Your task to perform on an android device: Open internet settings Image 0: 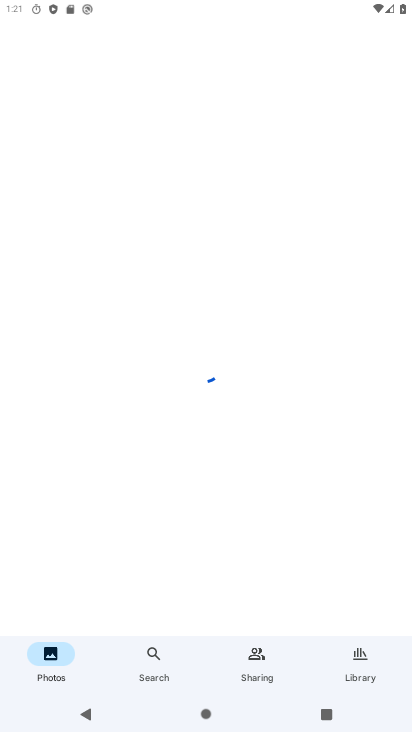
Step 0: click (300, 366)
Your task to perform on an android device: Open internet settings Image 1: 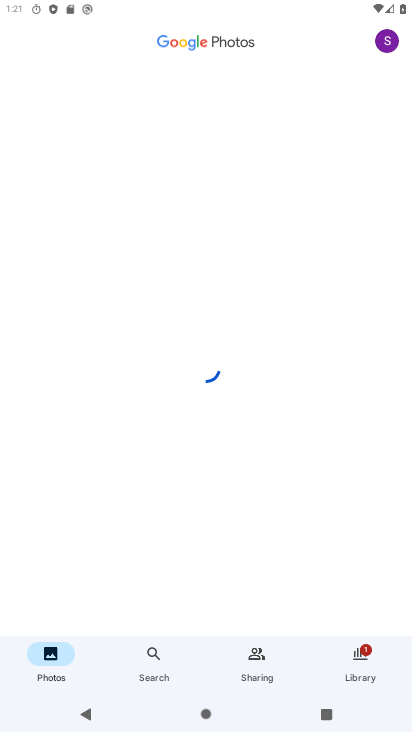
Step 1: press home button
Your task to perform on an android device: Open internet settings Image 2: 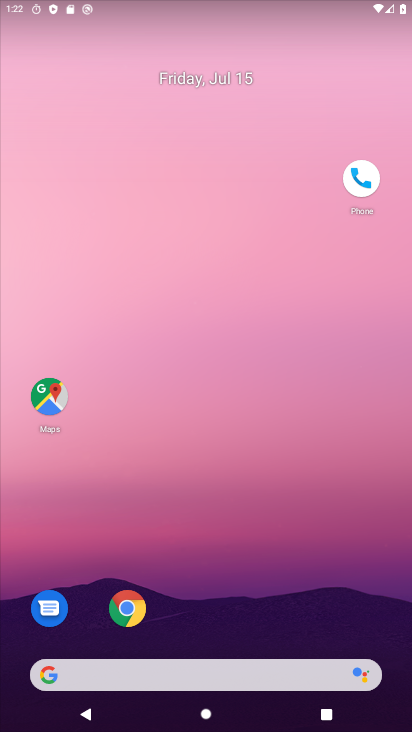
Step 2: drag from (175, 617) to (208, 148)
Your task to perform on an android device: Open internet settings Image 3: 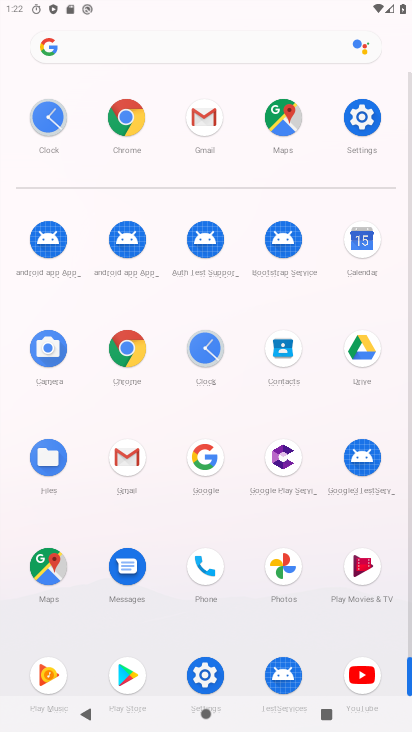
Step 3: click (184, 667)
Your task to perform on an android device: Open internet settings Image 4: 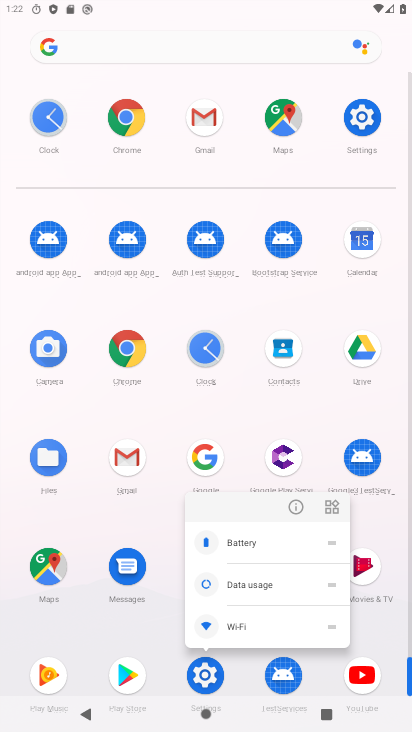
Step 4: click (299, 500)
Your task to perform on an android device: Open internet settings Image 5: 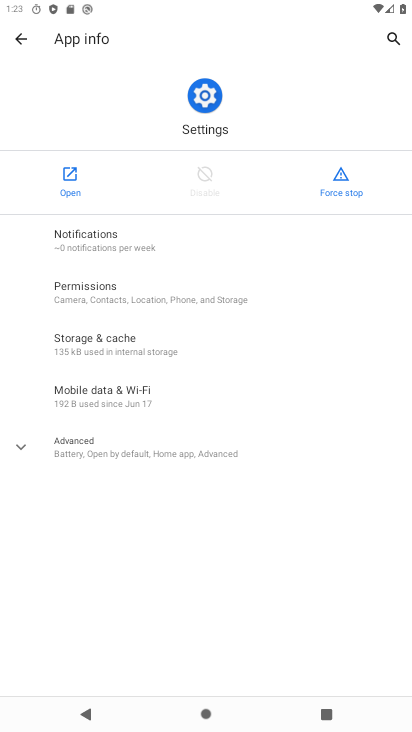
Step 5: click (69, 189)
Your task to perform on an android device: Open internet settings Image 6: 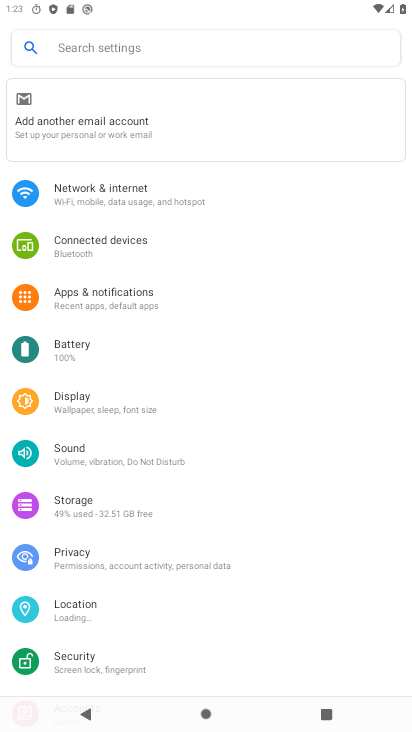
Step 6: click (150, 211)
Your task to perform on an android device: Open internet settings Image 7: 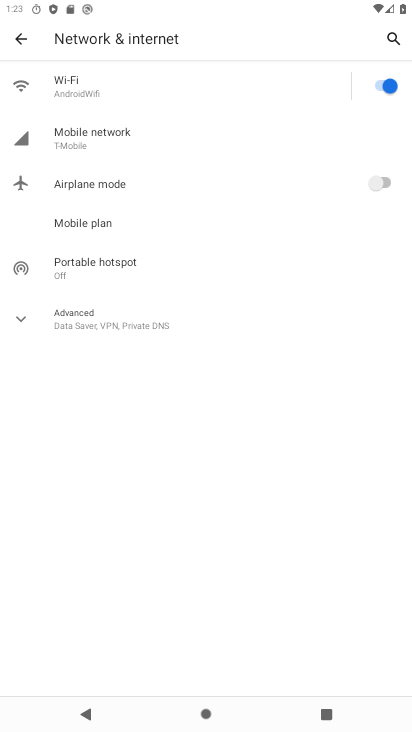
Step 7: click (96, 136)
Your task to perform on an android device: Open internet settings Image 8: 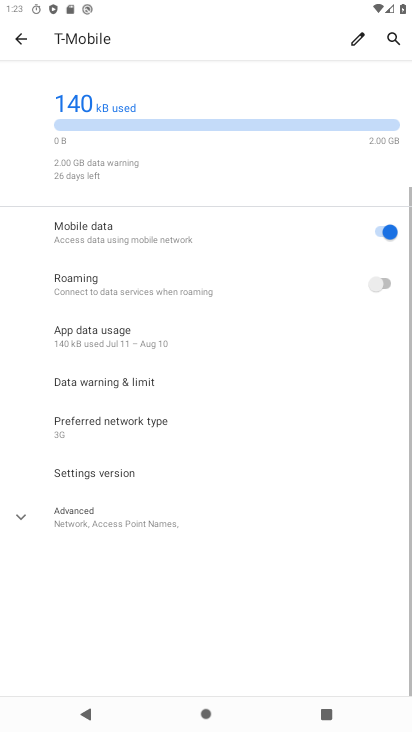
Step 8: task complete